Your task to perform on an android device: Open sound settings Image 0: 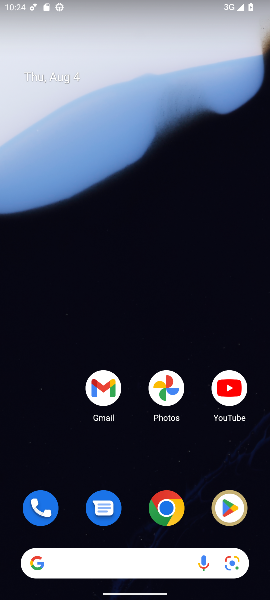
Step 0: drag from (24, 478) to (141, 73)
Your task to perform on an android device: Open sound settings Image 1: 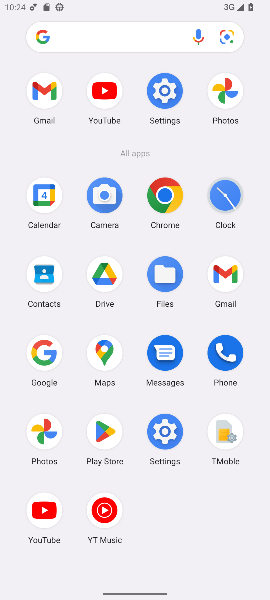
Step 1: click (172, 92)
Your task to perform on an android device: Open sound settings Image 2: 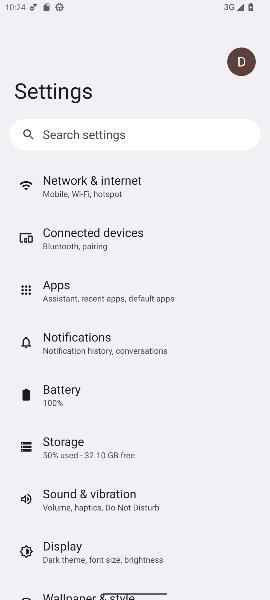
Step 2: drag from (7, 347) to (89, 132)
Your task to perform on an android device: Open sound settings Image 3: 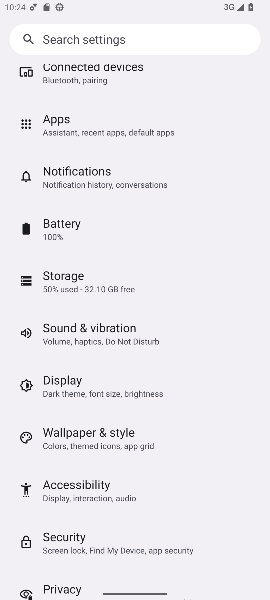
Step 3: drag from (8, 404) to (24, 268)
Your task to perform on an android device: Open sound settings Image 4: 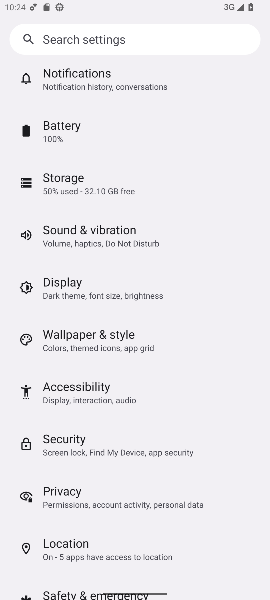
Step 4: click (42, 229)
Your task to perform on an android device: Open sound settings Image 5: 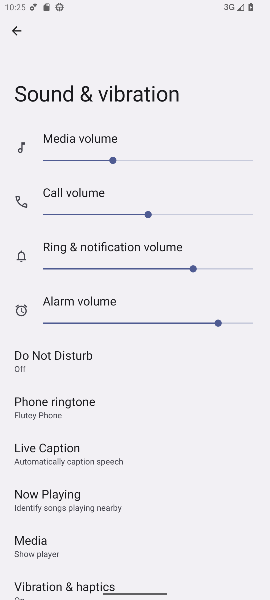
Step 5: task complete